Your task to perform on an android device: turn notification dots off Image 0: 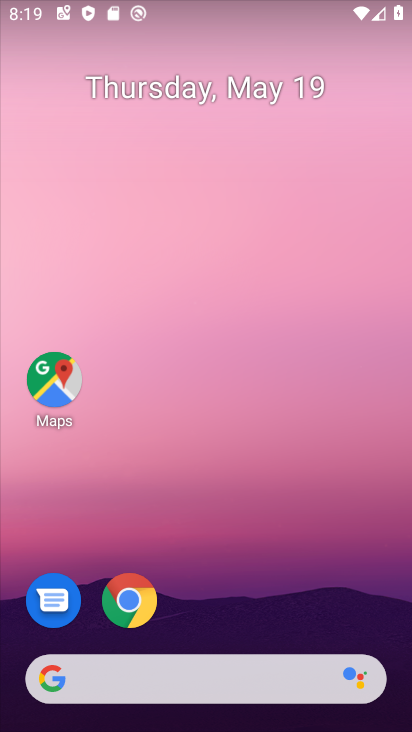
Step 0: drag from (259, 648) to (238, 9)
Your task to perform on an android device: turn notification dots off Image 1: 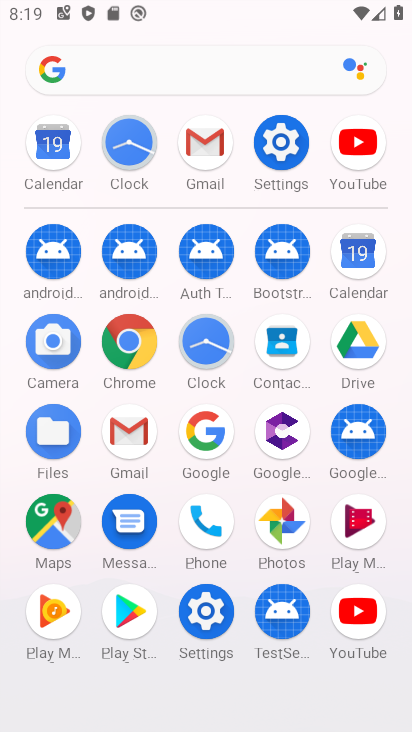
Step 1: click (282, 155)
Your task to perform on an android device: turn notification dots off Image 2: 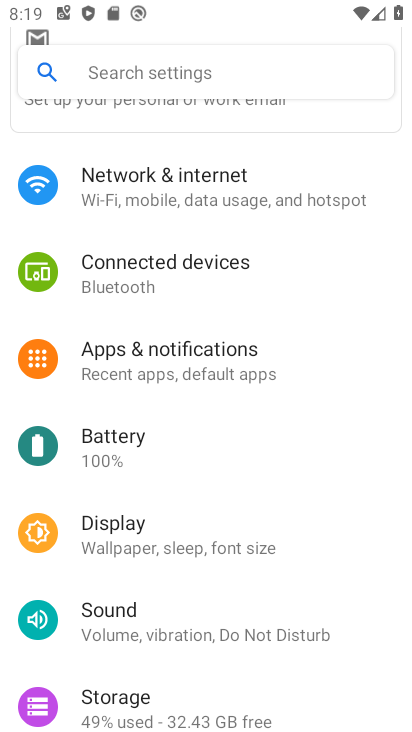
Step 2: click (226, 358)
Your task to perform on an android device: turn notification dots off Image 3: 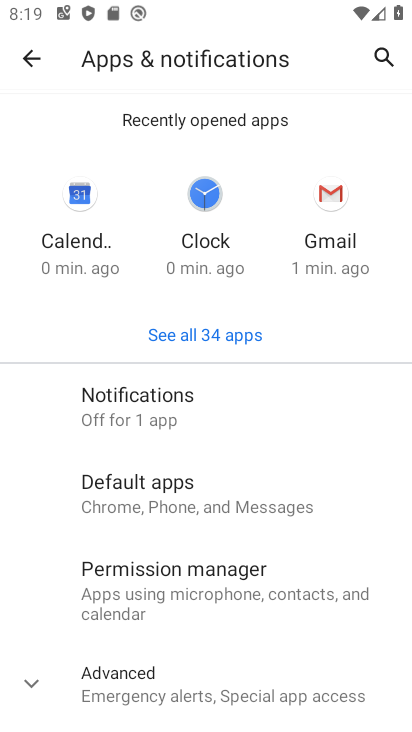
Step 3: click (119, 410)
Your task to perform on an android device: turn notification dots off Image 4: 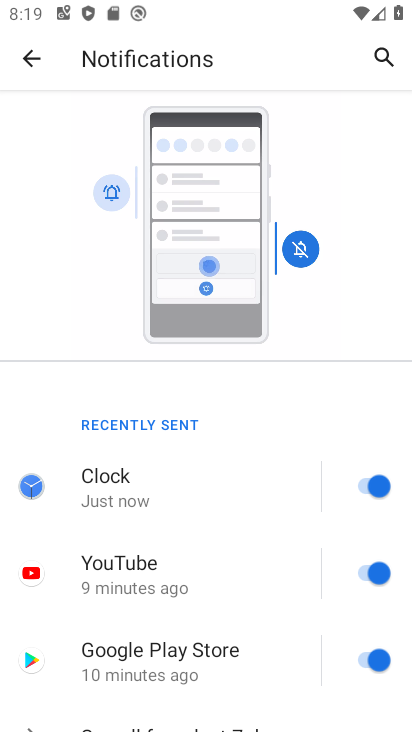
Step 4: drag from (233, 670) to (214, 86)
Your task to perform on an android device: turn notification dots off Image 5: 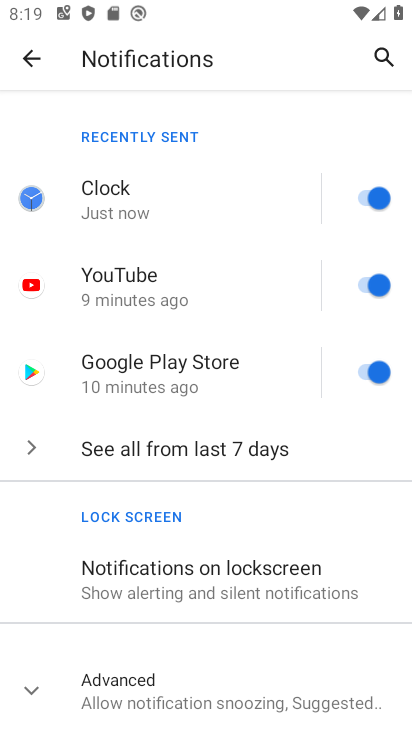
Step 5: click (28, 697)
Your task to perform on an android device: turn notification dots off Image 6: 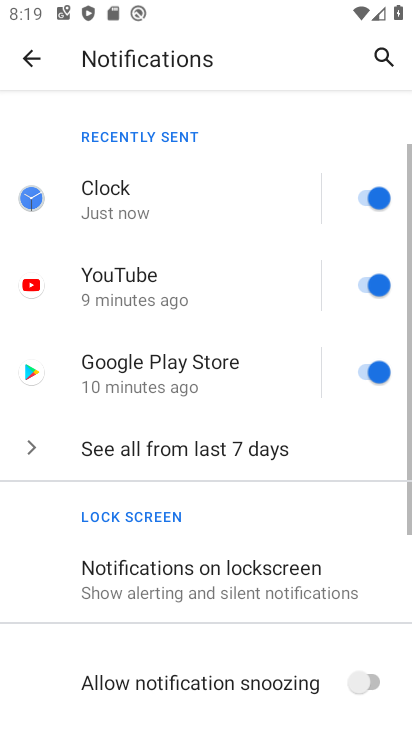
Step 6: task complete